Your task to perform on an android device: Show me the alarms in the clock app Image 0: 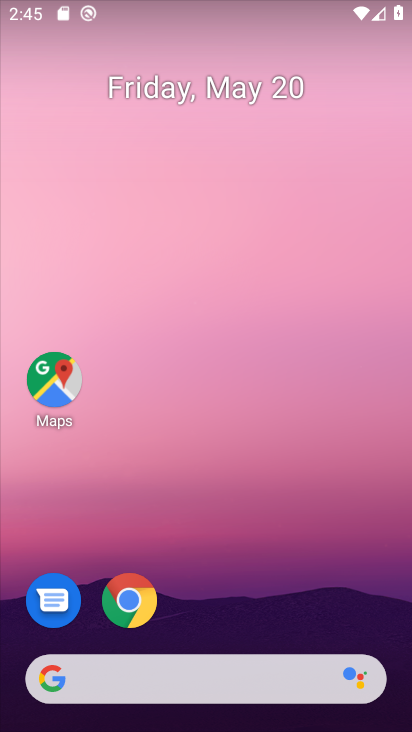
Step 0: drag from (358, 615) to (346, 264)
Your task to perform on an android device: Show me the alarms in the clock app Image 1: 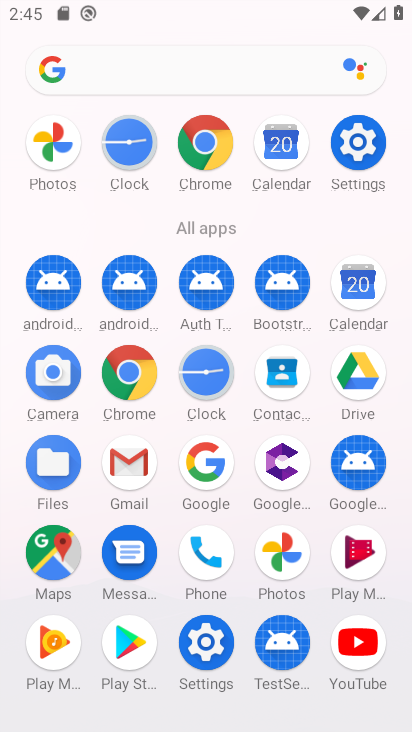
Step 1: click (206, 373)
Your task to perform on an android device: Show me the alarms in the clock app Image 2: 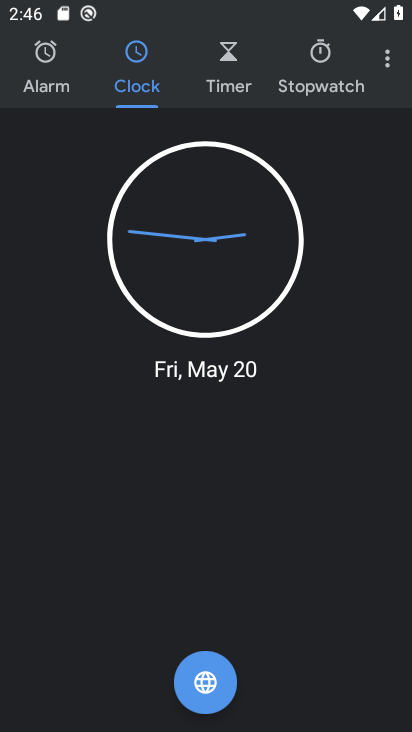
Step 2: click (50, 84)
Your task to perform on an android device: Show me the alarms in the clock app Image 3: 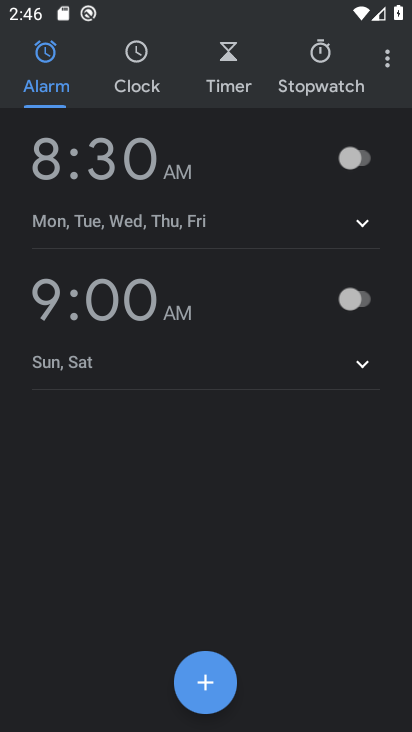
Step 3: task complete